Your task to perform on an android device: turn pop-ups on in chrome Image 0: 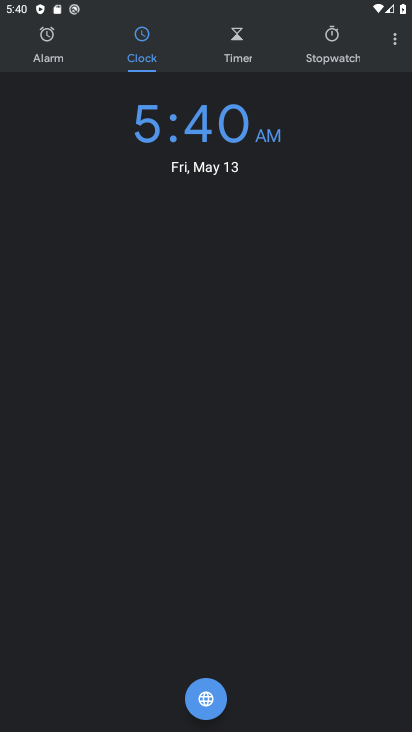
Step 0: press home button
Your task to perform on an android device: turn pop-ups on in chrome Image 1: 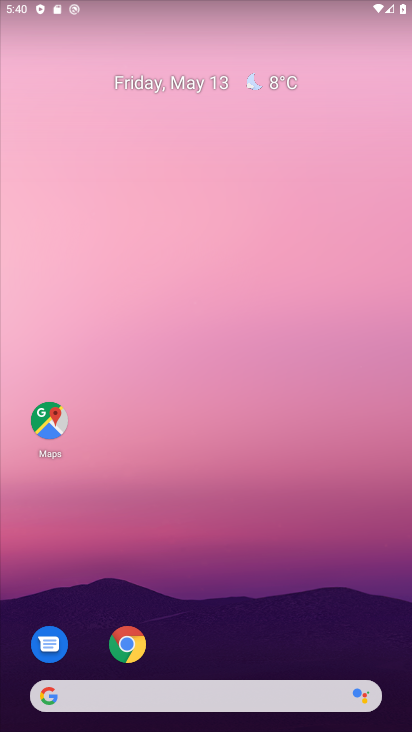
Step 1: drag from (226, 615) to (69, 314)
Your task to perform on an android device: turn pop-ups on in chrome Image 2: 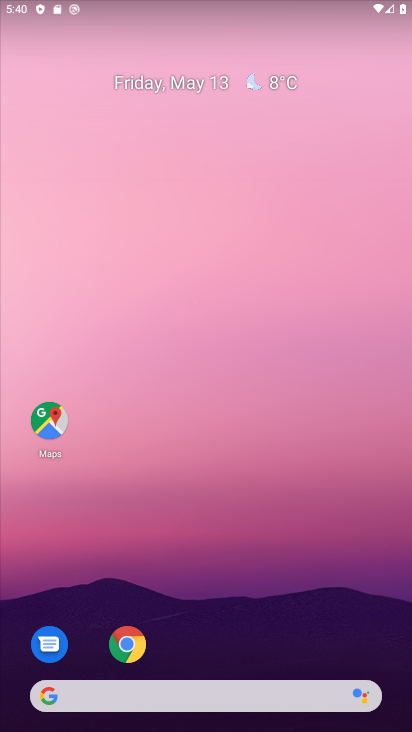
Step 2: click (130, 651)
Your task to perform on an android device: turn pop-ups on in chrome Image 3: 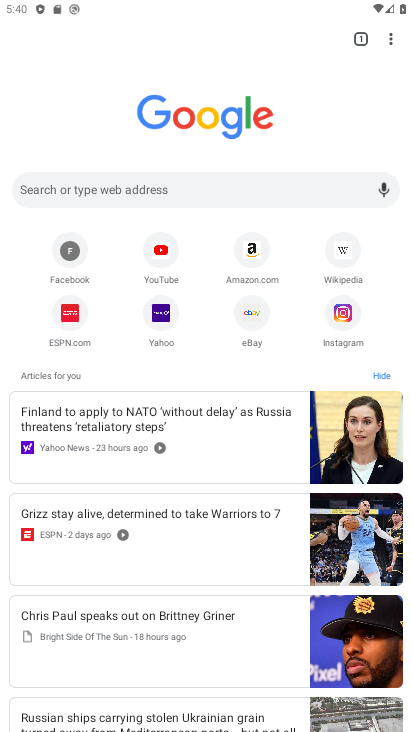
Step 3: click (390, 42)
Your task to perform on an android device: turn pop-ups on in chrome Image 4: 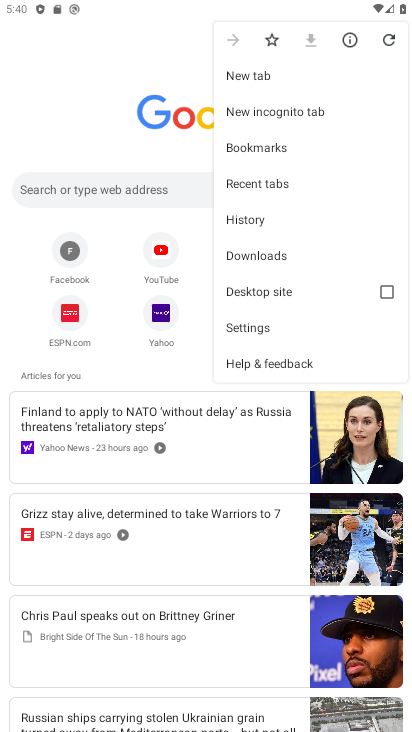
Step 4: click (247, 329)
Your task to perform on an android device: turn pop-ups on in chrome Image 5: 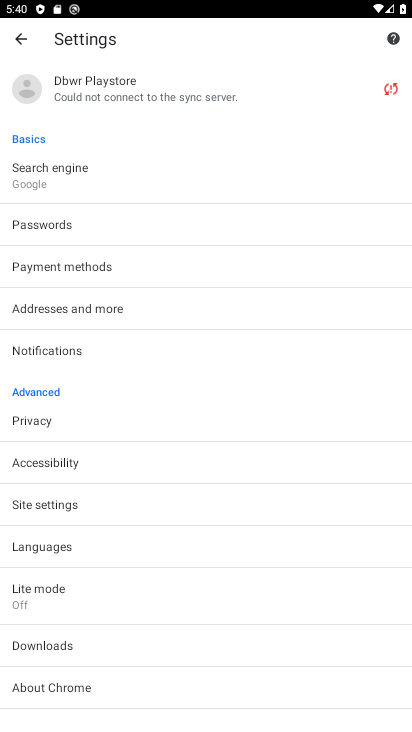
Step 5: click (50, 501)
Your task to perform on an android device: turn pop-ups on in chrome Image 6: 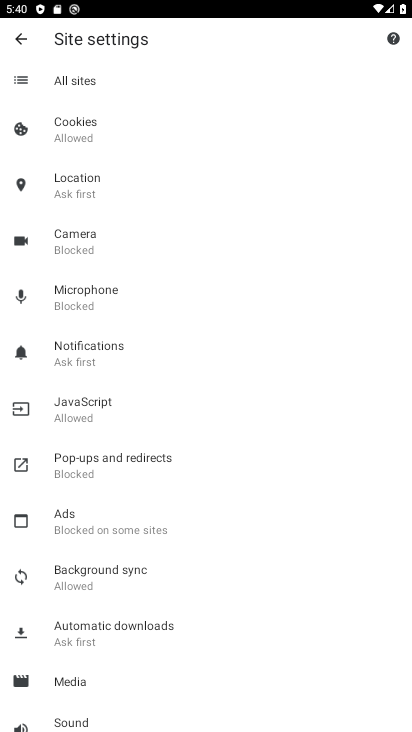
Step 6: click (75, 456)
Your task to perform on an android device: turn pop-ups on in chrome Image 7: 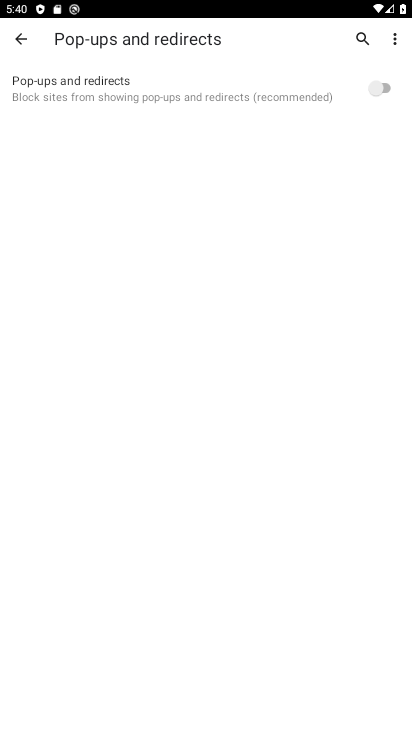
Step 7: click (376, 89)
Your task to perform on an android device: turn pop-ups on in chrome Image 8: 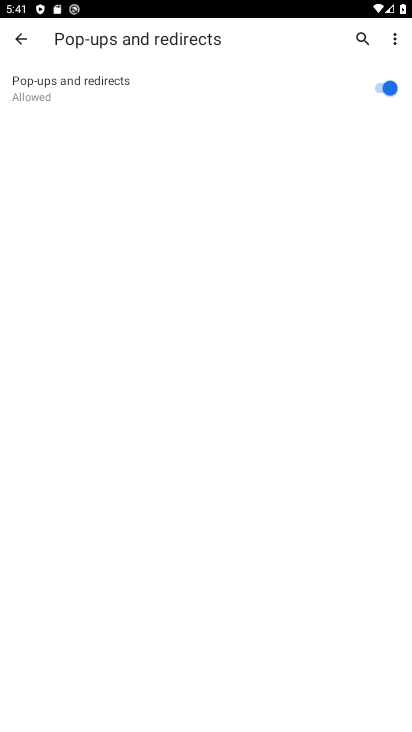
Step 8: task complete